Your task to perform on an android device: Go to privacy settings Image 0: 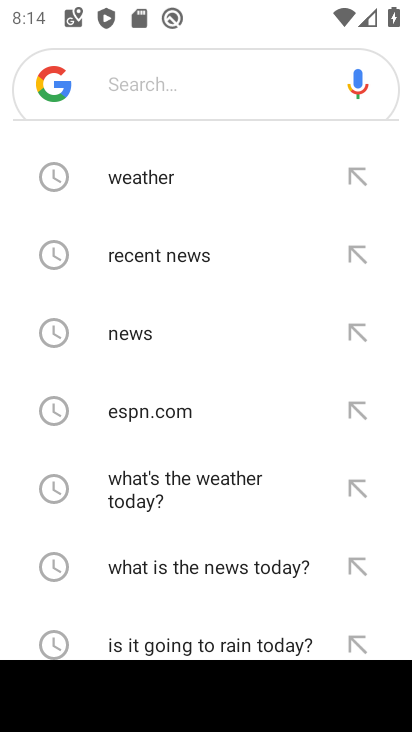
Step 0: press home button
Your task to perform on an android device: Go to privacy settings Image 1: 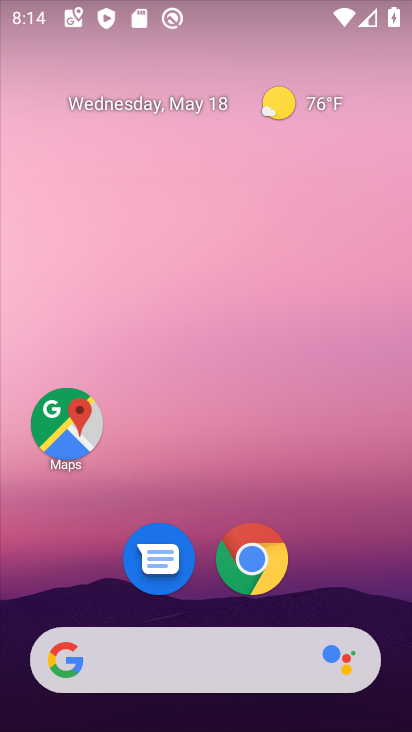
Step 1: drag from (207, 515) to (226, 14)
Your task to perform on an android device: Go to privacy settings Image 2: 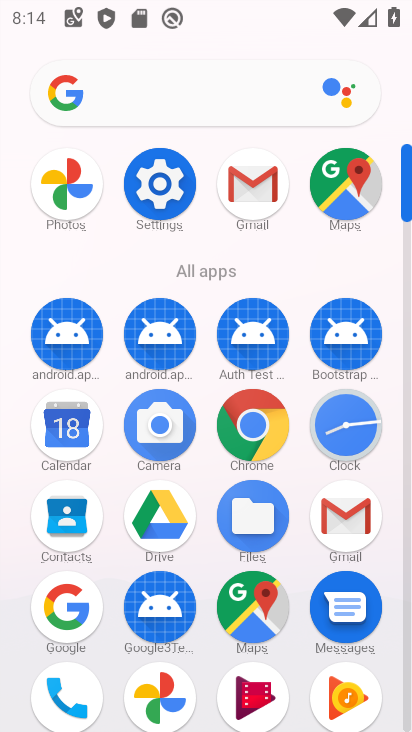
Step 2: click (167, 194)
Your task to perform on an android device: Go to privacy settings Image 3: 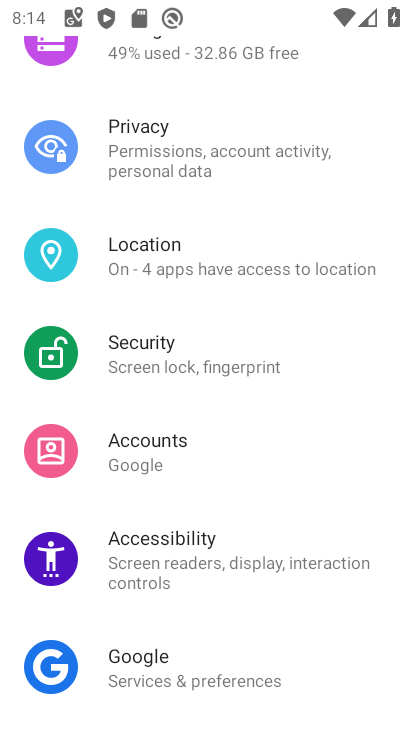
Step 3: click (183, 156)
Your task to perform on an android device: Go to privacy settings Image 4: 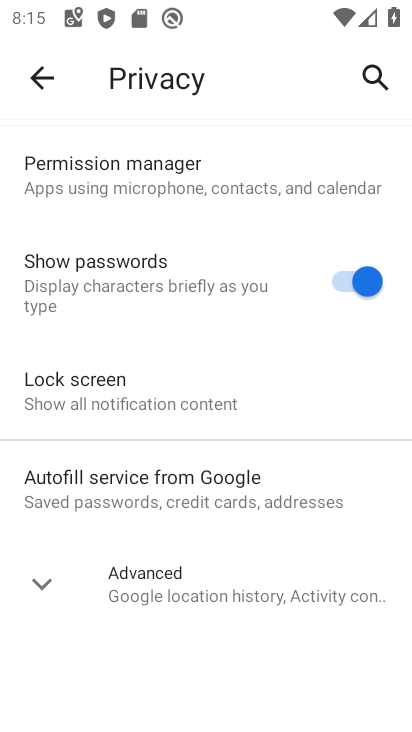
Step 4: task complete